Your task to perform on an android device: Open internet settings Image 0: 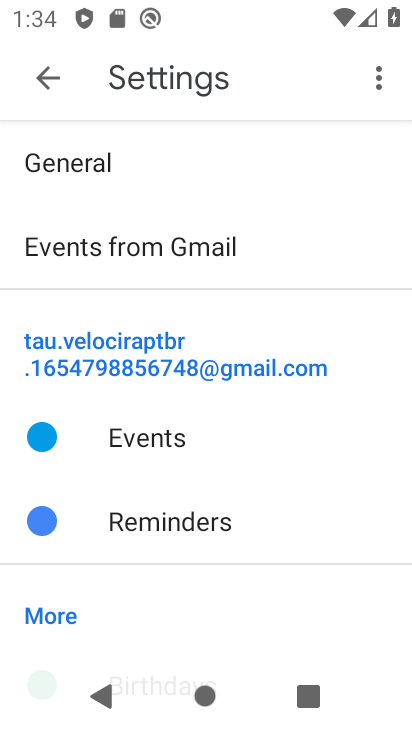
Step 0: press back button
Your task to perform on an android device: Open internet settings Image 1: 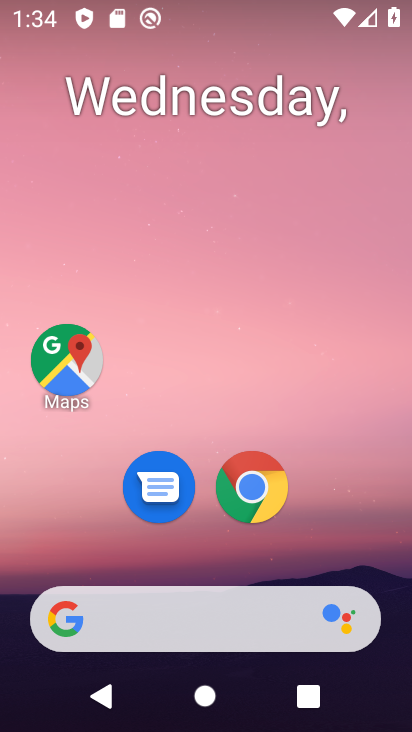
Step 1: drag from (147, 599) to (299, 53)
Your task to perform on an android device: Open internet settings Image 2: 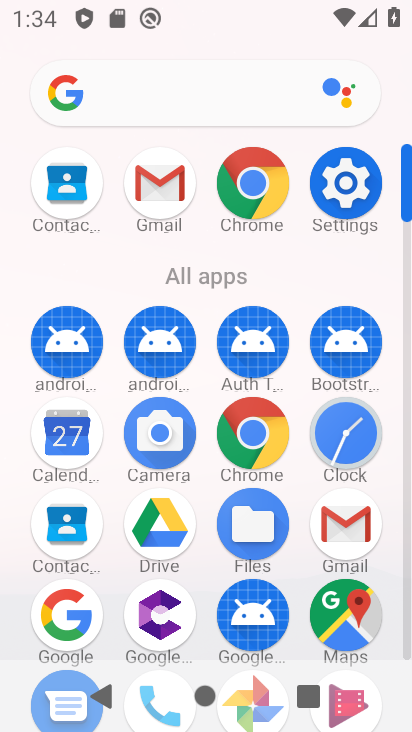
Step 2: click (344, 202)
Your task to perform on an android device: Open internet settings Image 3: 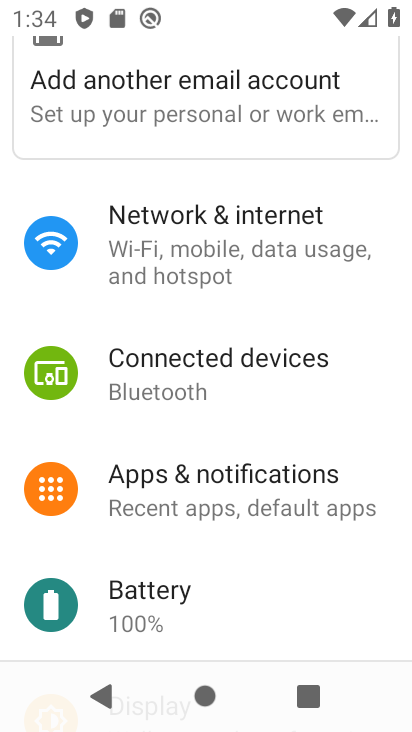
Step 3: click (222, 240)
Your task to perform on an android device: Open internet settings Image 4: 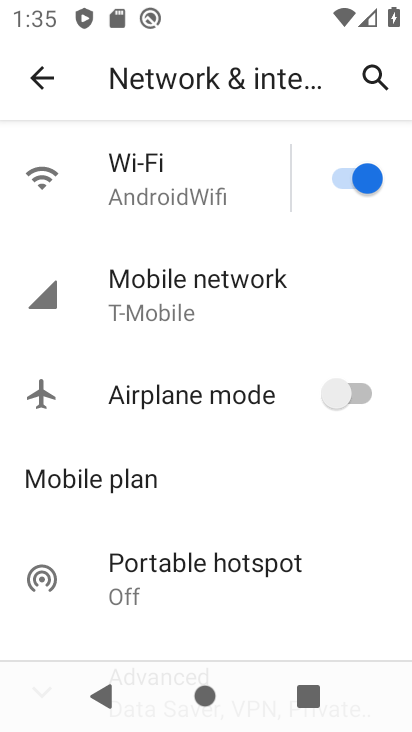
Step 4: task complete